Your task to perform on an android device: Clear the cart on walmart. Image 0: 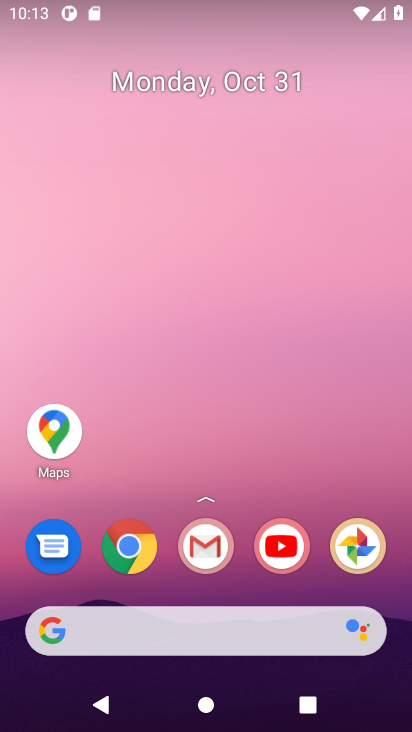
Step 0: click (134, 554)
Your task to perform on an android device: Clear the cart on walmart. Image 1: 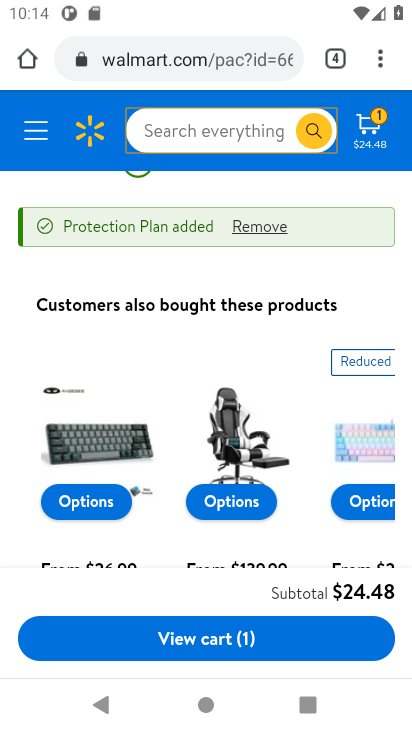
Step 1: click (364, 134)
Your task to perform on an android device: Clear the cart on walmart. Image 2: 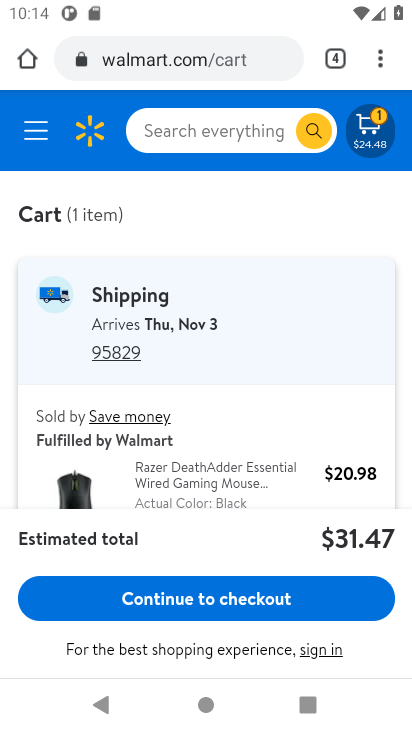
Step 2: drag from (270, 470) to (292, 215)
Your task to perform on an android device: Clear the cart on walmart. Image 3: 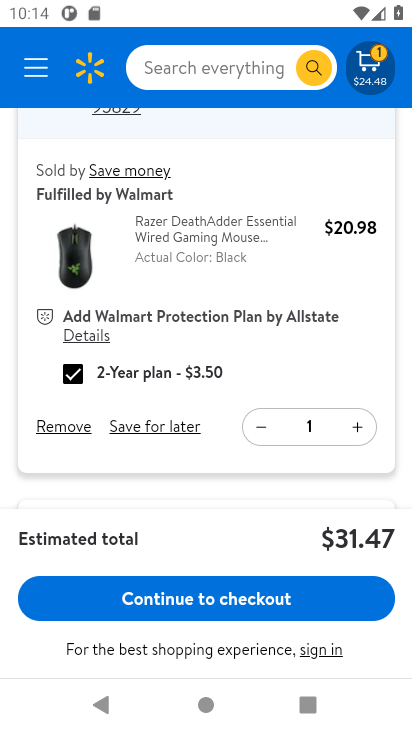
Step 3: click (264, 429)
Your task to perform on an android device: Clear the cart on walmart. Image 4: 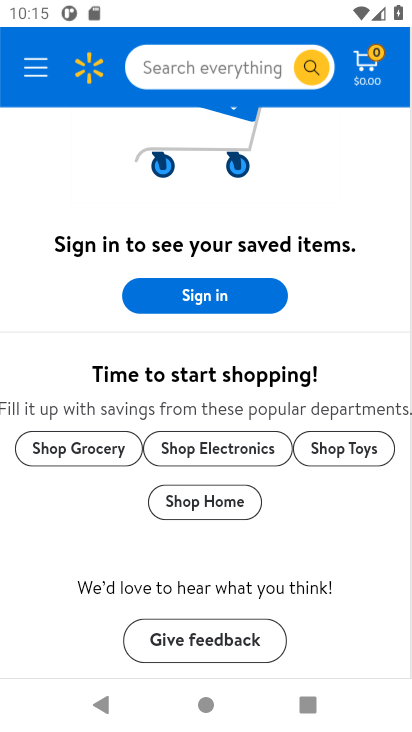
Step 4: task complete